Your task to perform on an android device: change text size in settings app Image 0: 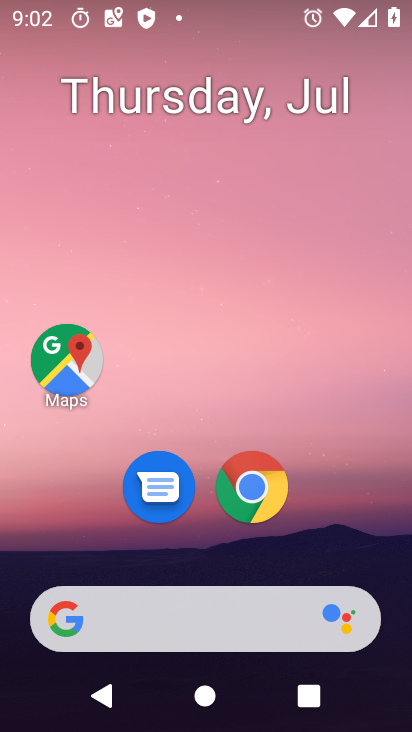
Step 0: drag from (228, 666) to (267, 109)
Your task to perform on an android device: change text size in settings app Image 1: 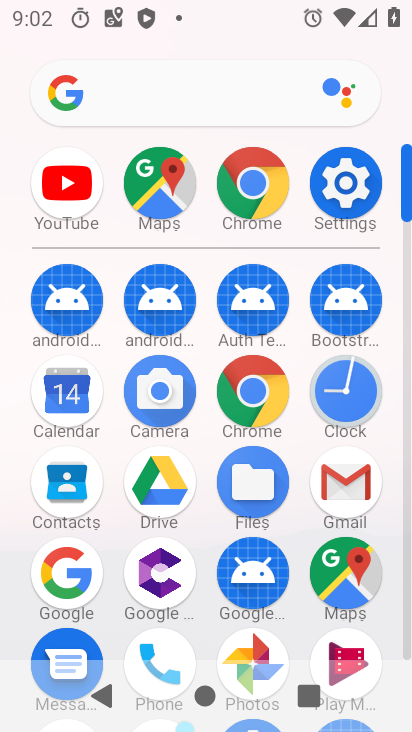
Step 1: click (327, 218)
Your task to perform on an android device: change text size in settings app Image 2: 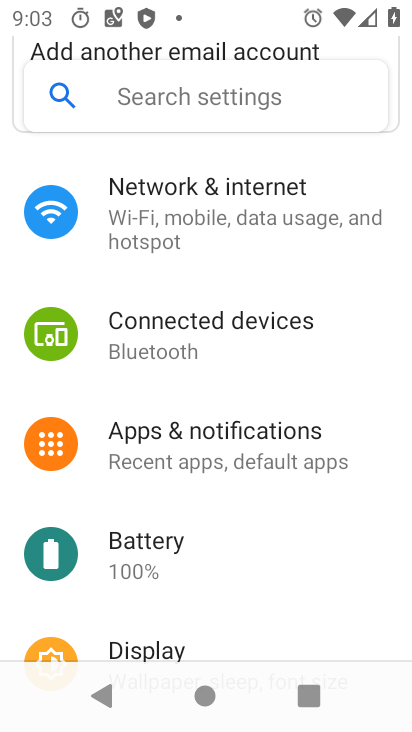
Step 2: drag from (233, 560) to (241, 381)
Your task to perform on an android device: change text size in settings app Image 3: 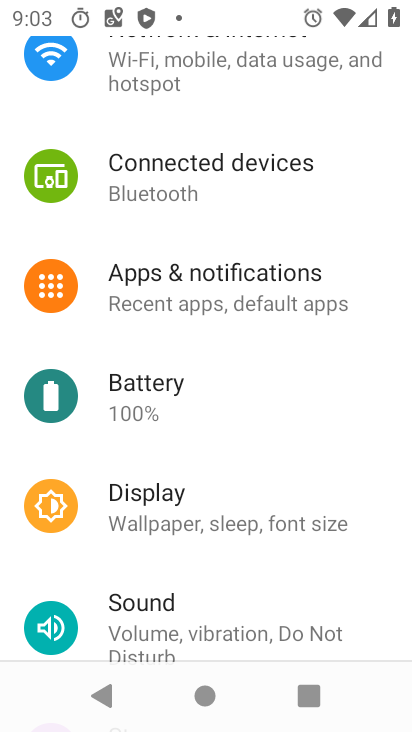
Step 3: click (187, 510)
Your task to perform on an android device: change text size in settings app Image 4: 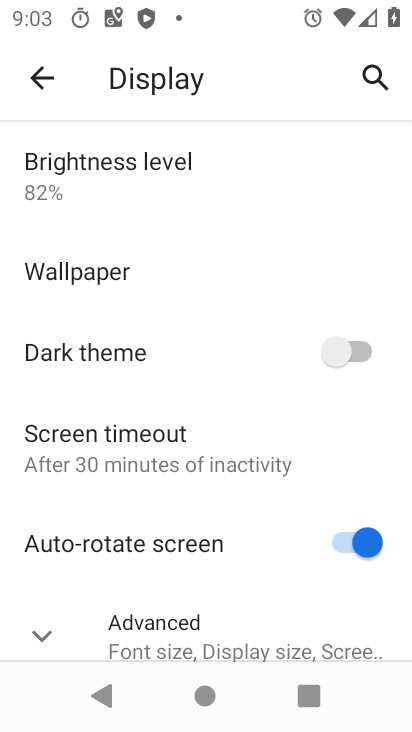
Step 4: click (153, 634)
Your task to perform on an android device: change text size in settings app Image 5: 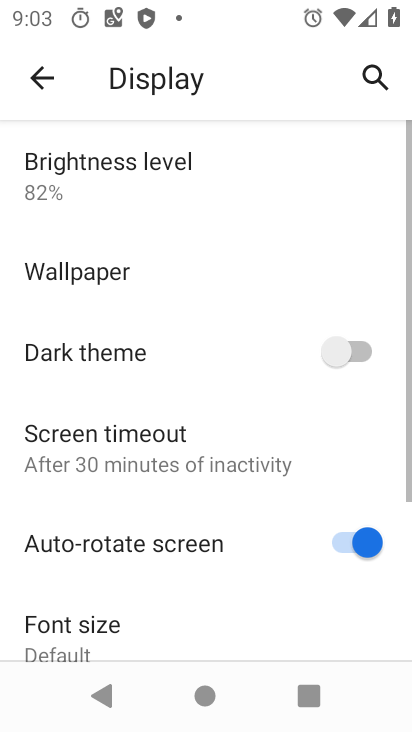
Step 5: drag from (153, 521) to (173, 206)
Your task to perform on an android device: change text size in settings app Image 6: 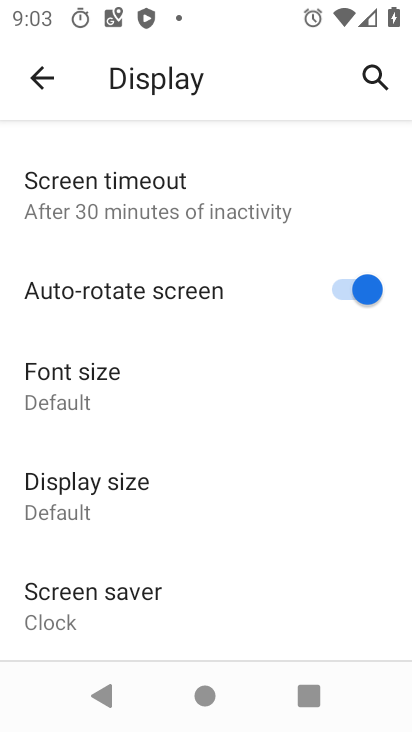
Step 6: click (109, 386)
Your task to perform on an android device: change text size in settings app Image 7: 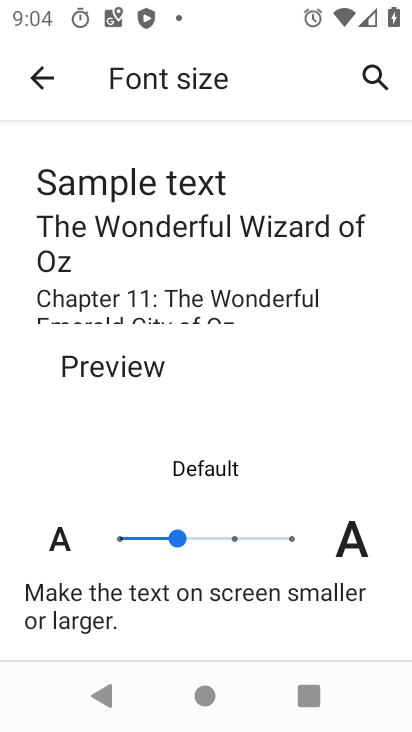
Step 7: click (223, 542)
Your task to perform on an android device: change text size in settings app Image 8: 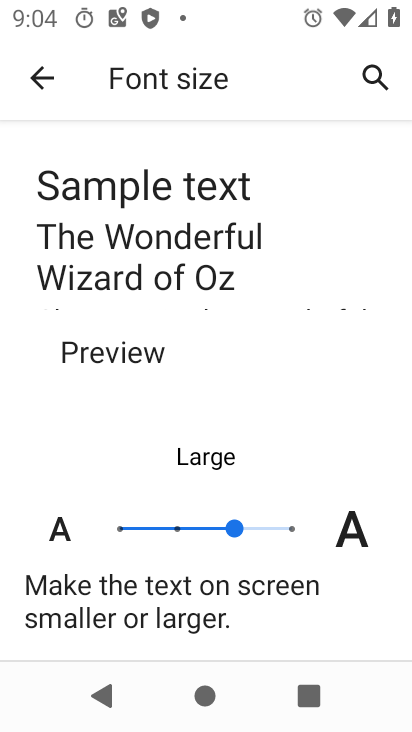
Step 8: task complete